Your task to perform on an android device: Go to Reddit.com Image 0: 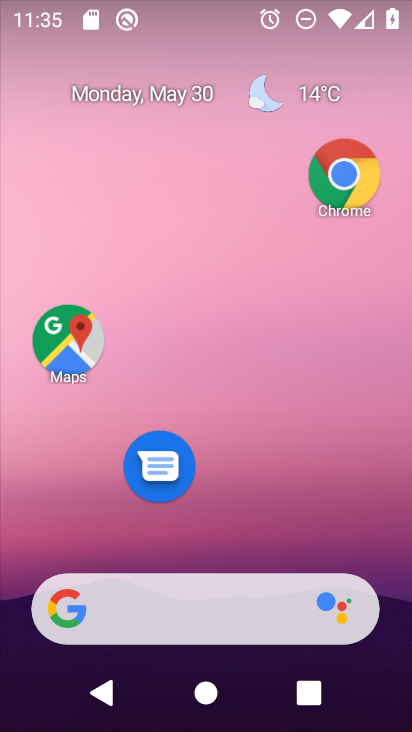
Step 0: click (122, 600)
Your task to perform on an android device: Go to Reddit.com Image 1: 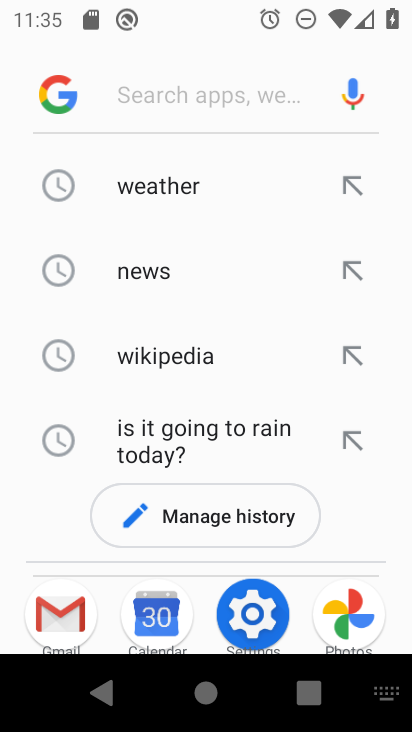
Step 1: type "Reddit.com"
Your task to perform on an android device: Go to Reddit.com Image 2: 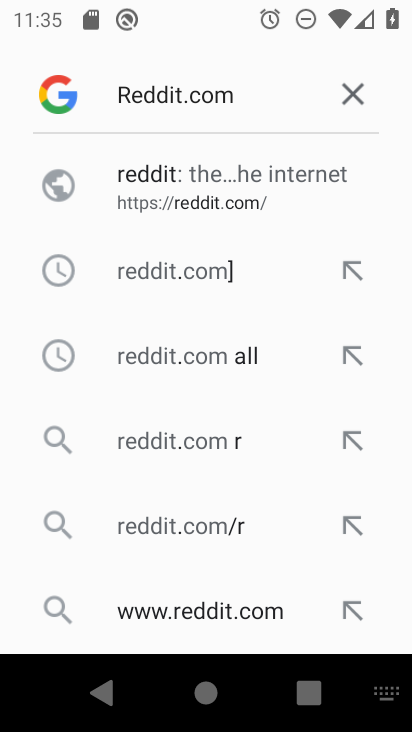
Step 2: click (231, 173)
Your task to perform on an android device: Go to Reddit.com Image 3: 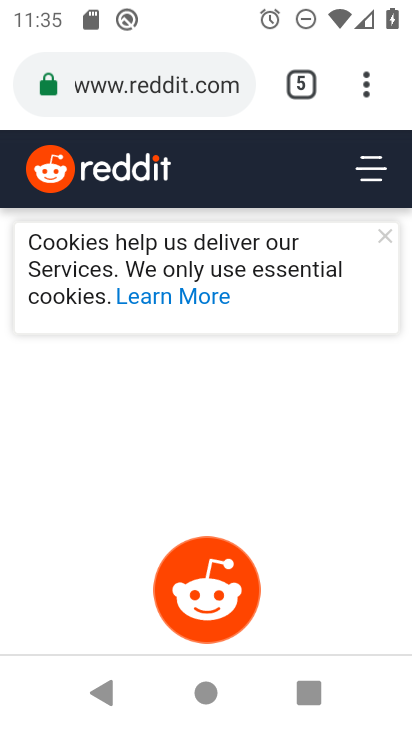
Step 3: task complete